Your task to perform on an android device: Look up "custom art" on Etsy Image 0: 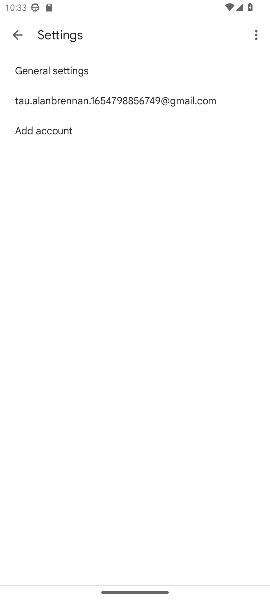
Step 0: press home button
Your task to perform on an android device: Look up "custom art" on Etsy Image 1: 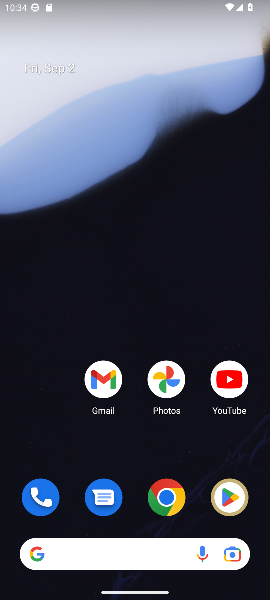
Step 1: drag from (127, 491) to (139, 243)
Your task to perform on an android device: Look up "custom art" on Etsy Image 2: 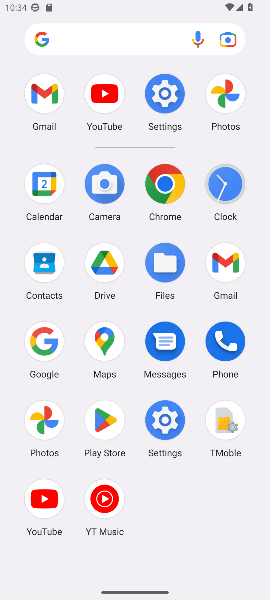
Step 2: click (46, 352)
Your task to perform on an android device: Look up "custom art" on Etsy Image 3: 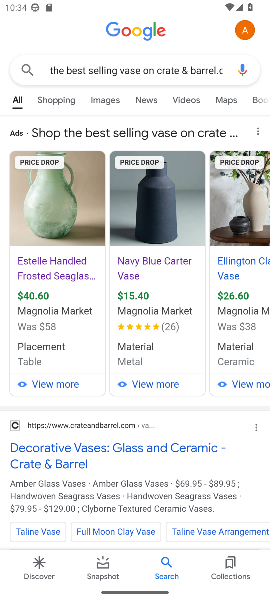
Step 3: click (46, 352)
Your task to perform on an android device: Look up "custom art" on Etsy Image 4: 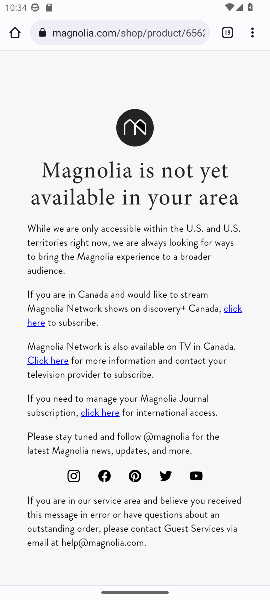
Step 4: click (87, 66)
Your task to perform on an android device: Look up "custom art" on Etsy Image 5: 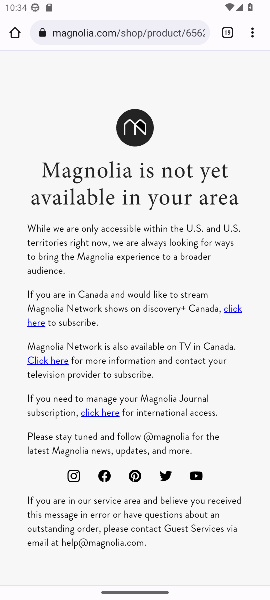
Step 5: click (119, 30)
Your task to perform on an android device: Look up "custom art" on Etsy Image 6: 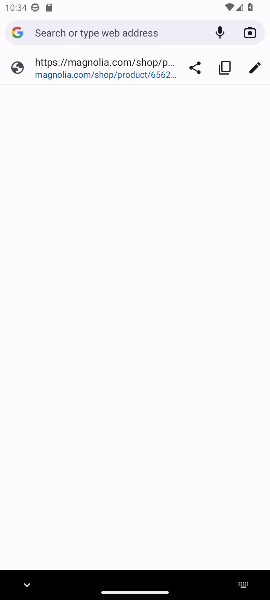
Step 6: type "custom art" on Etsy"
Your task to perform on an android device: Look up "custom art" on Etsy Image 7: 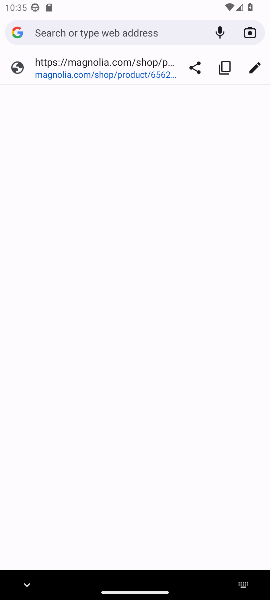
Step 7: type "custom art" on Etsy"
Your task to perform on an android device: Look up "custom art" on Etsy Image 8: 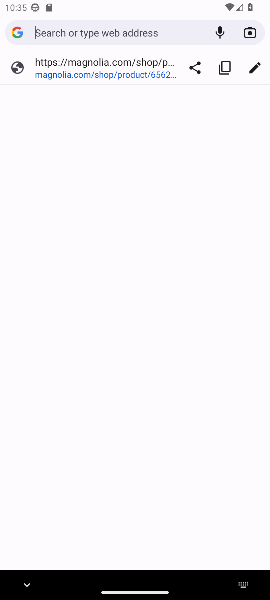
Step 8: task complete